Your task to perform on an android device: turn vacation reply on in the gmail app Image 0: 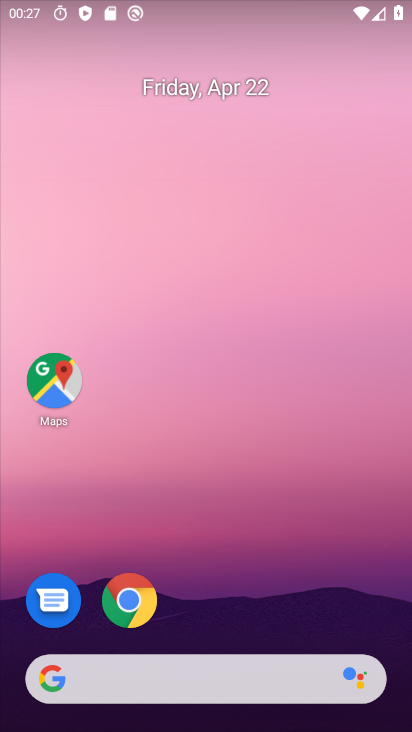
Step 0: drag from (203, 602) to (254, 65)
Your task to perform on an android device: turn vacation reply on in the gmail app Image 1: 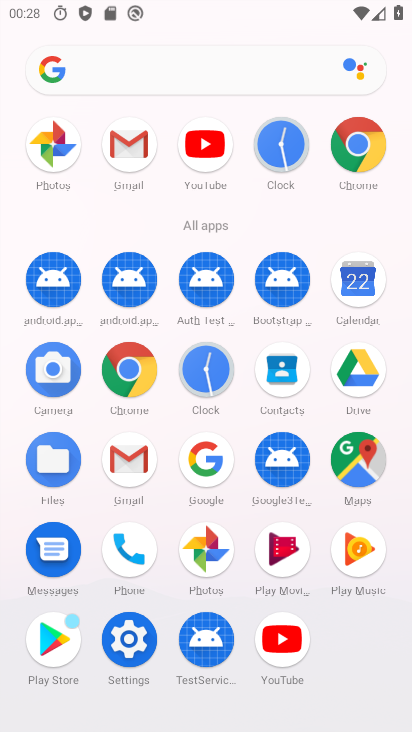
Step 1: click (127, 157)
Your task to perform on an android device: turn vacation reply on in the gmail app Image 2: 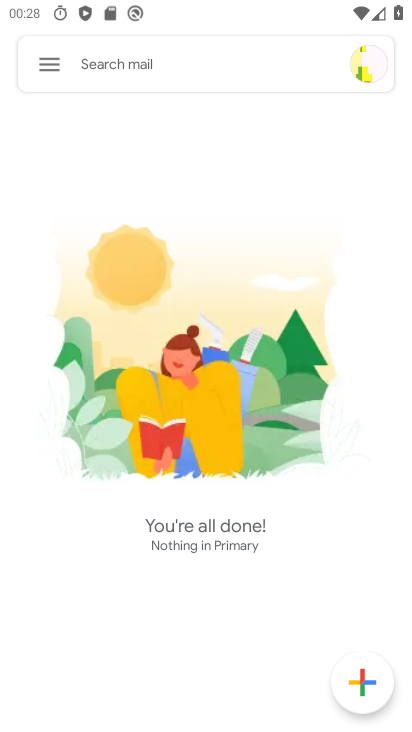
Step 2: click (48, 61)
Your task to perform on an android device: turn vacation reply on in the gmail app Image 3: 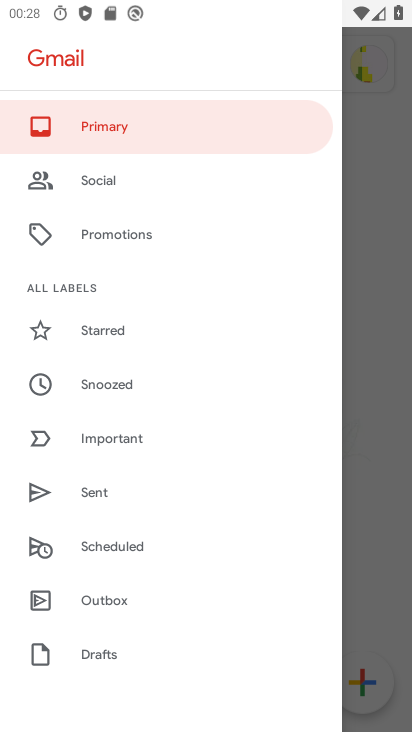
Step 3: drag from (144, 627) to (192, 242)
Your task to perform on an android device: turn vacation reply on in the gmail app Image 4: 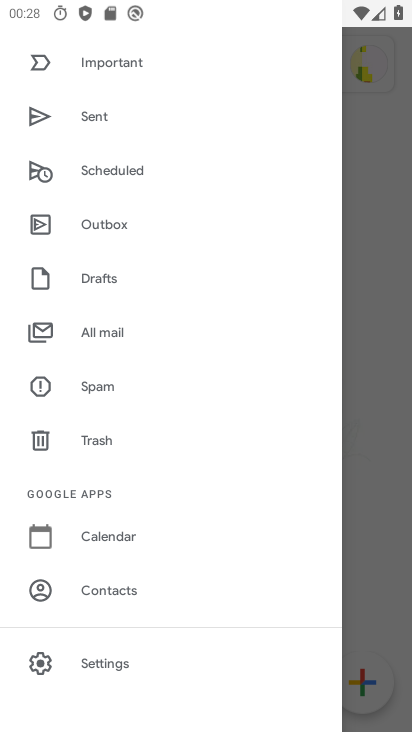
Step 4: click (126, 657)
Your task to perform on an android device: turn vacation reply on in the gmail app Image 5: 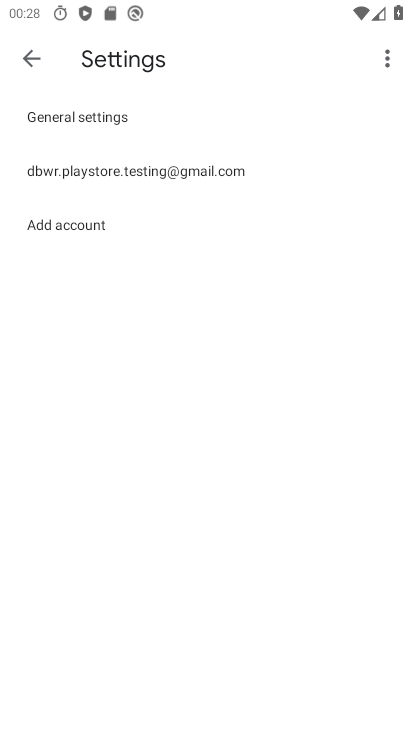
Step 5: click (141, 177)
Your task to perform on an android device: turn vacation reply on in the gmail app Image 6: 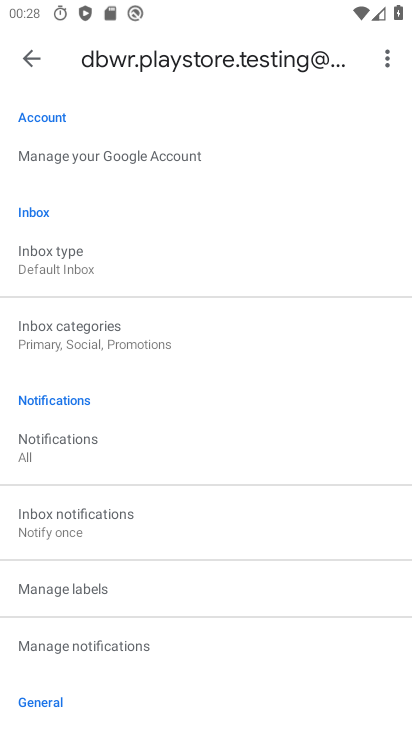
Step 6: drag from (151, 527) to (191, 137)
Your task to perform on an android device: turn vacation reply on in the gmail app Image 7: 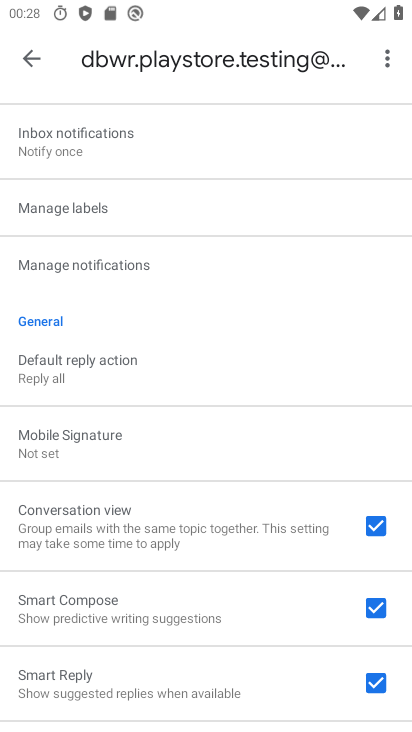
Step 7: drag from (164, 571) to (194, 255)
Your task to perform on an android device: turn vacation reply on in the gmail app Image 8: 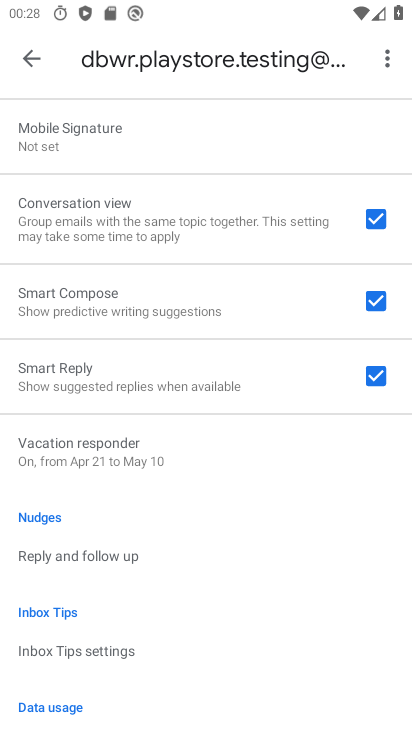
Step 8: click (158, 446)
Your task to perform on an android device: turn vacation reply on in the gmail app Image 9: 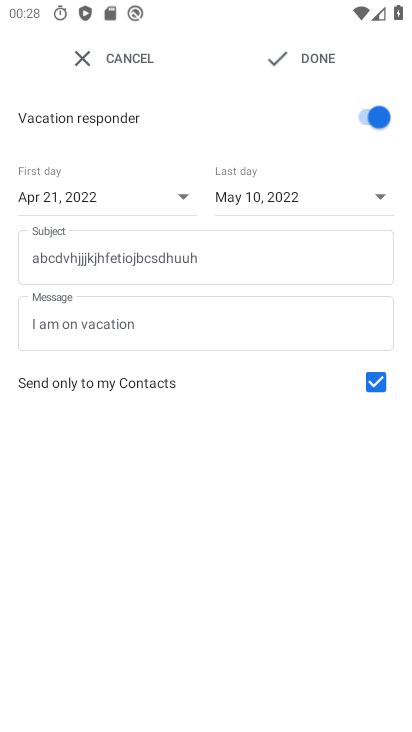
Step 9: task complete